Your task to perform on an android device: Open maps Image 0: 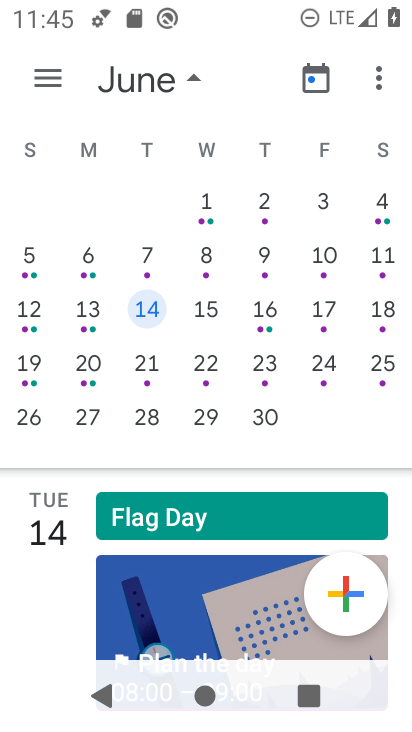
Step 0: press home button
Your task to perform on an android device: Open maps Image 1: 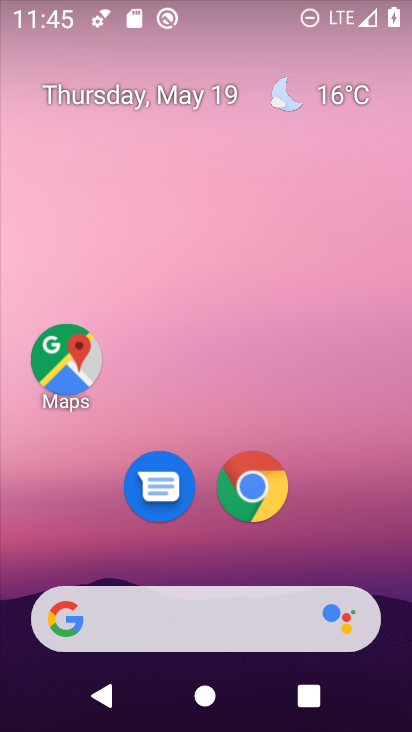
Step 1: click (81, 383)
Your task to perform on an android device: Open maps Image 2: 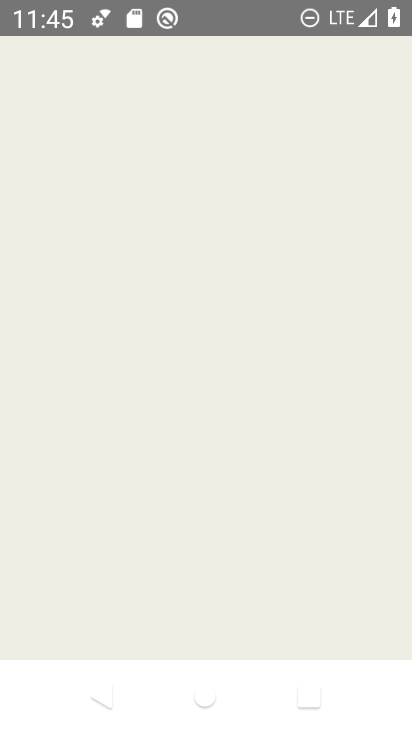
Step 2: click (81, 383)
Your task to perform on an android device: Open maps Image 3: 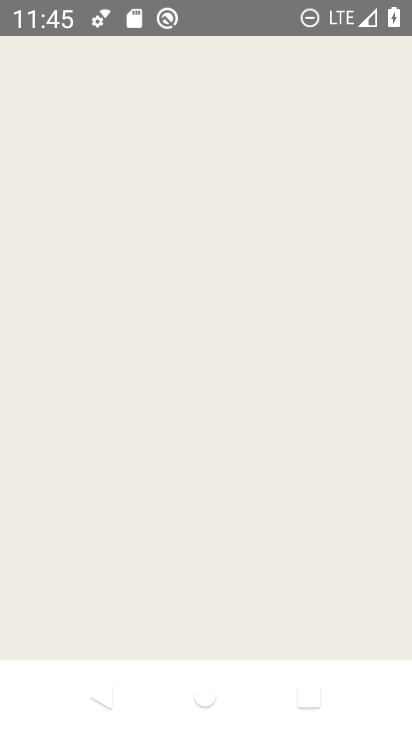
Step 3: task complete